Your task to perform on an android device: What's the weather today? Image 0: 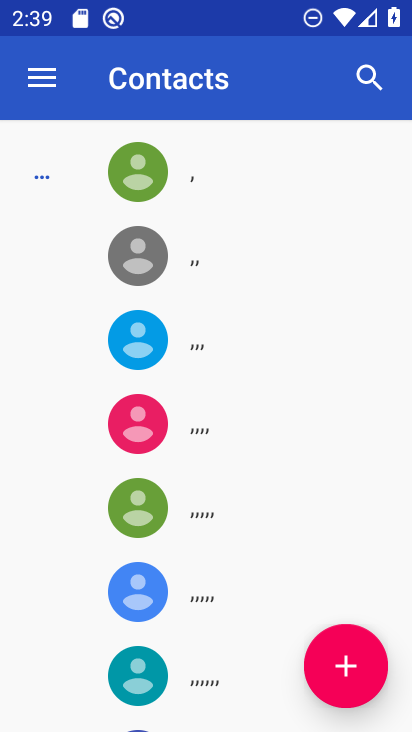
Step 0: press home button
Your task to perform on an android device: What's the weather today? Image 1: 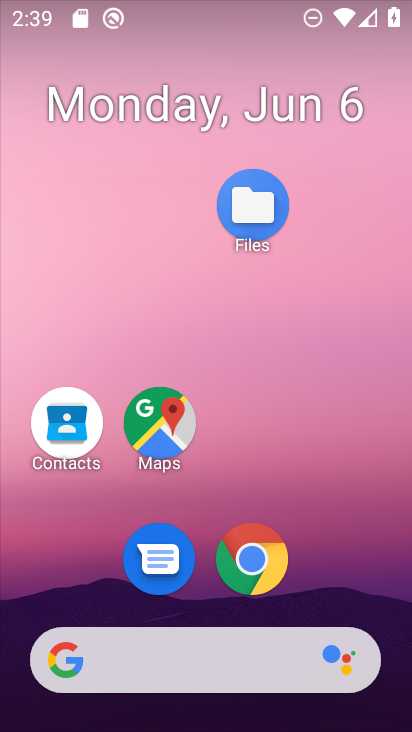
Step 1: drag from (196, 643) to (277, 104)
Your task to perform on an android device: What's the weather today? Image 2: 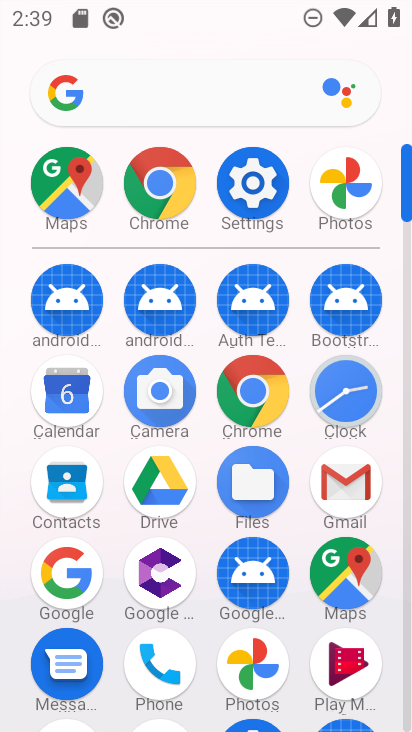
Step 2: click (84, 578)
Your task to perform on an android device: What's the weather today? Image 3: 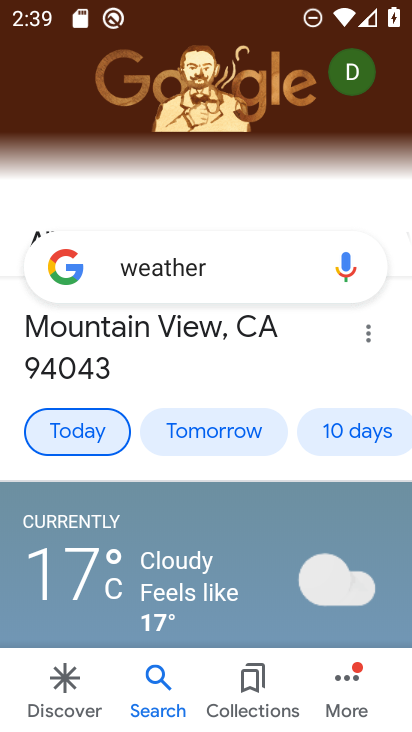
Step 3: task complete